Your task to perform on an android device: find photos in the google photos app Image 0: 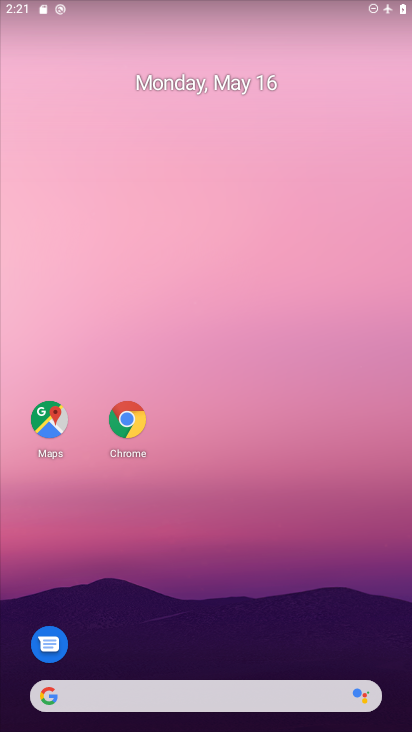
Step 0: drag from (200, 608) to (184, 166)
Your task to perform on an android device: find photos in the google photos app Image 1: 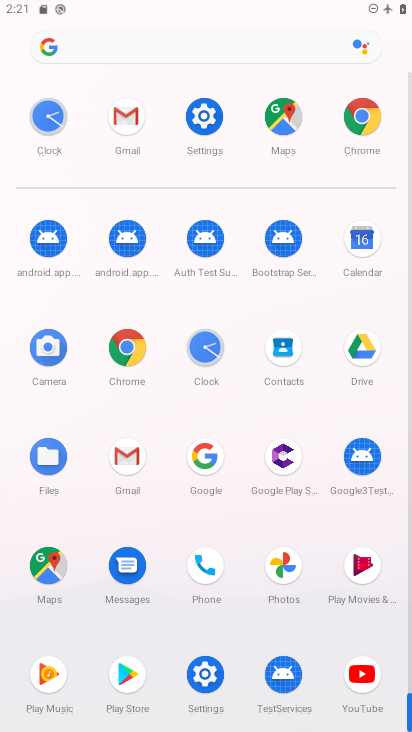
Step 1: click (274, 557)
Your task to perform on an android device: find photos in the google photos app Image 2: 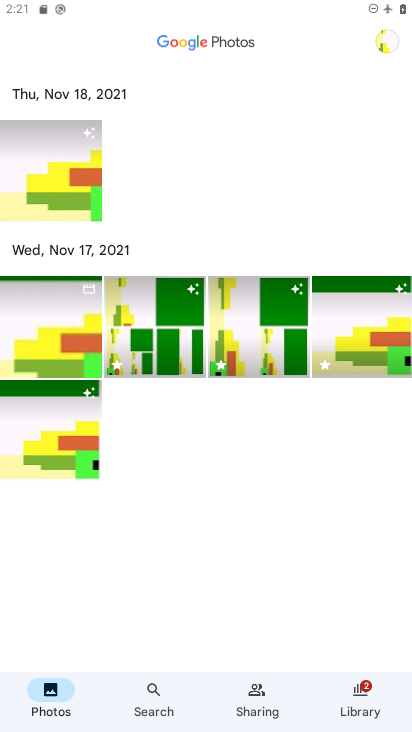
Step 2: click (48, 339)
Your task to perform on an android device: find photos in the google photos app Image 3: 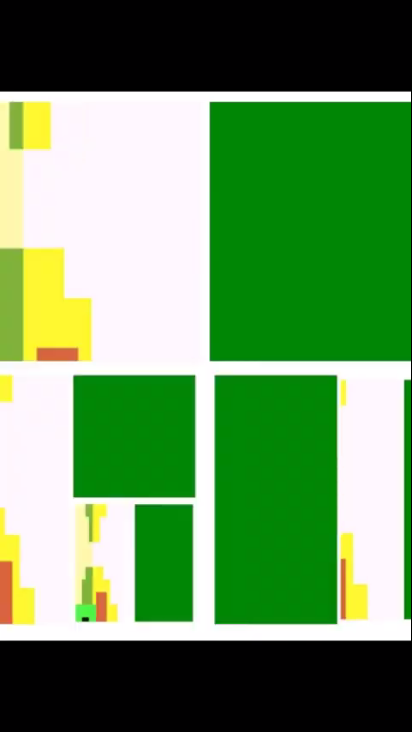
Step 3: task complete